Your task to perform on an android device: Show me popular games on the Play Store Image 0: 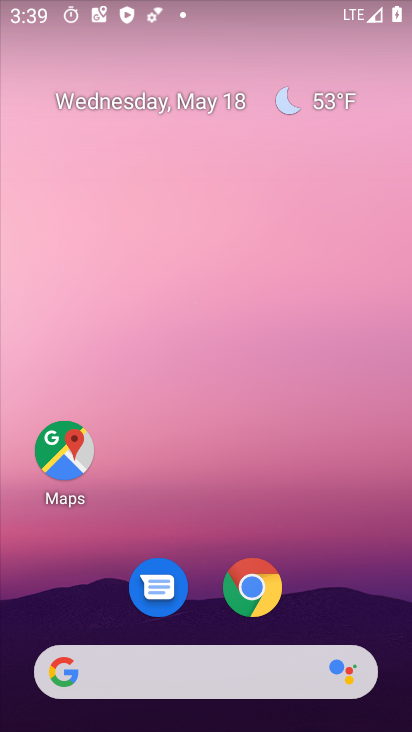
Step 0: drag from (234, 695) to (232, 229)
Your task to perform on an android device: Show me popular games on the Play Store Image 1: 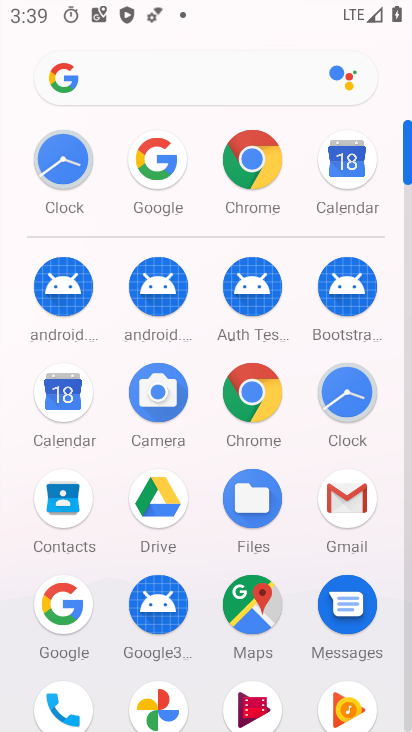
Step 1: drag from (218, 574) to (254, 225)
Your task to perform on an android device: Show me popular games on the Play Store Image 2: 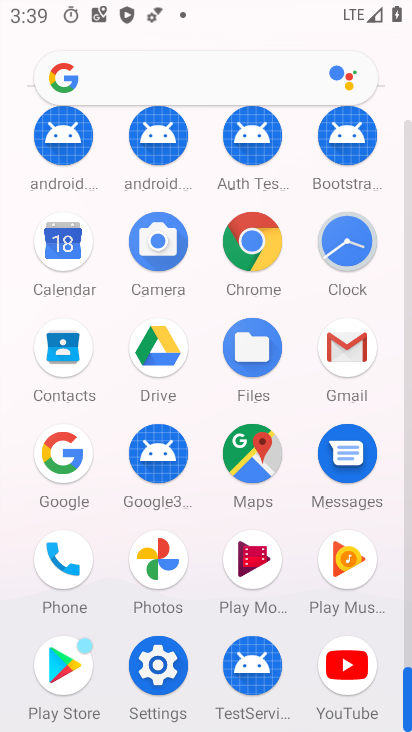
Step 2: click (43, 688)
Your task to perform on an android device: Show me popular games on the Play Store Image 3: 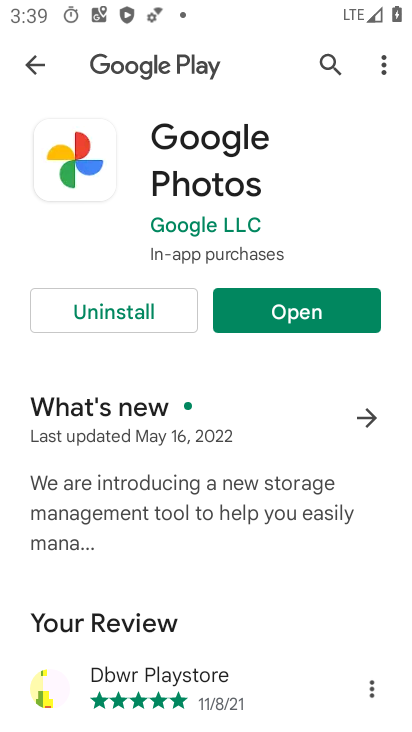
Step 3: click (26, 59)
Your task to perform on an android device: Show me popular games on the Play Store Image 4: 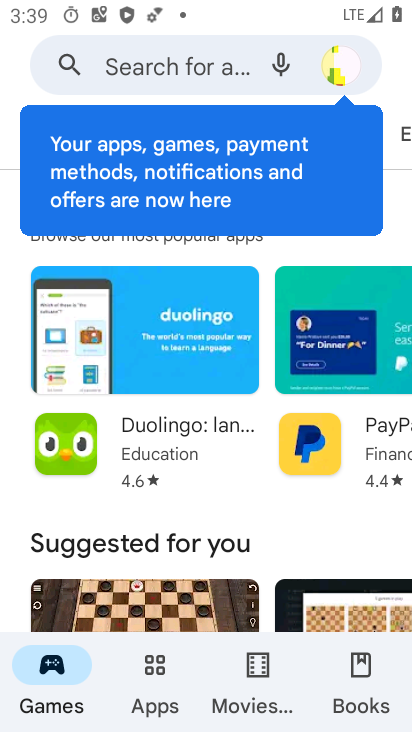
Step 4: task complete